Your task to perform on an android device: open app "Microsoft Excel" (install if not already installed) and enter user name: "kidnappers@icloud.com" and password: "Bessemerizes" Image 0: 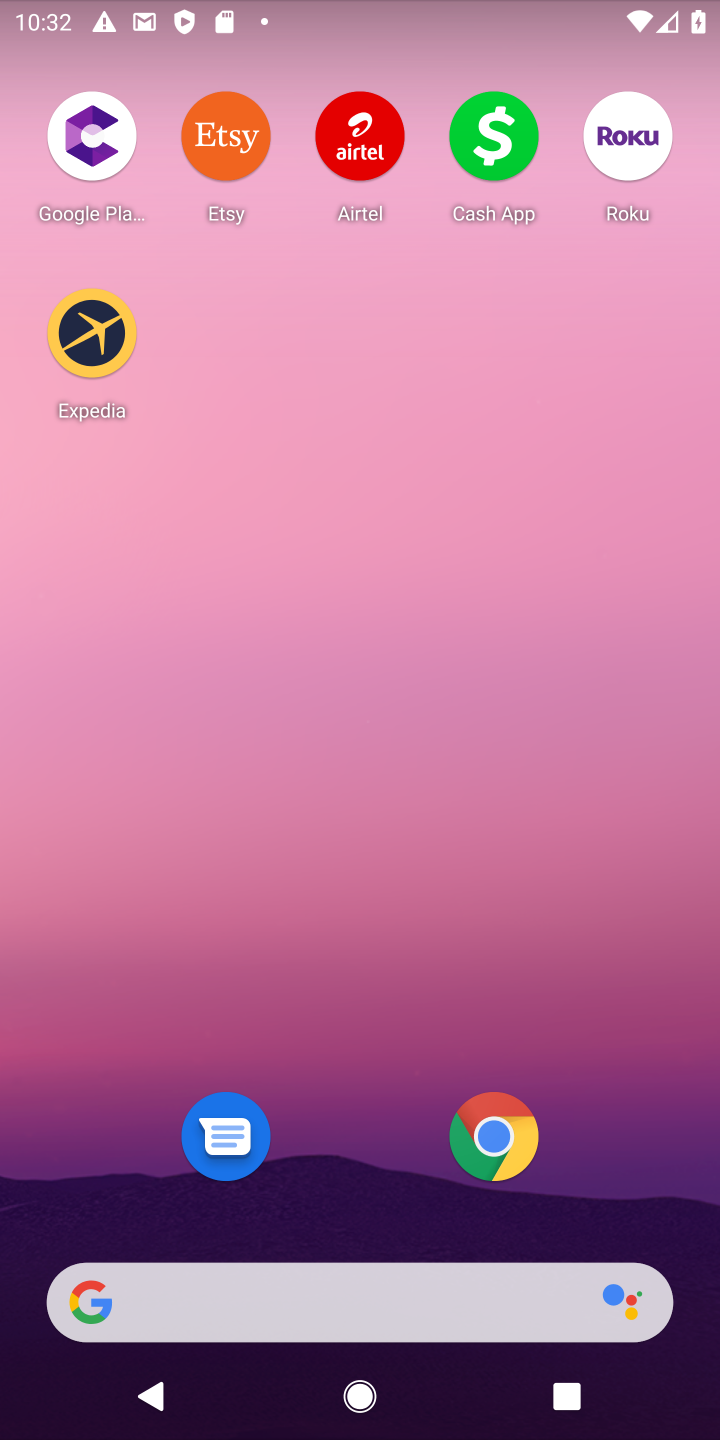
Step 0: drag from (388, 1288) to (379, 98)
Your task to perform on an android device: open app "Microsoft Excel" (install if not already installed) and enter user name: "kidnappers@icloud.com" and password: "Bessemerizes" Image 1: 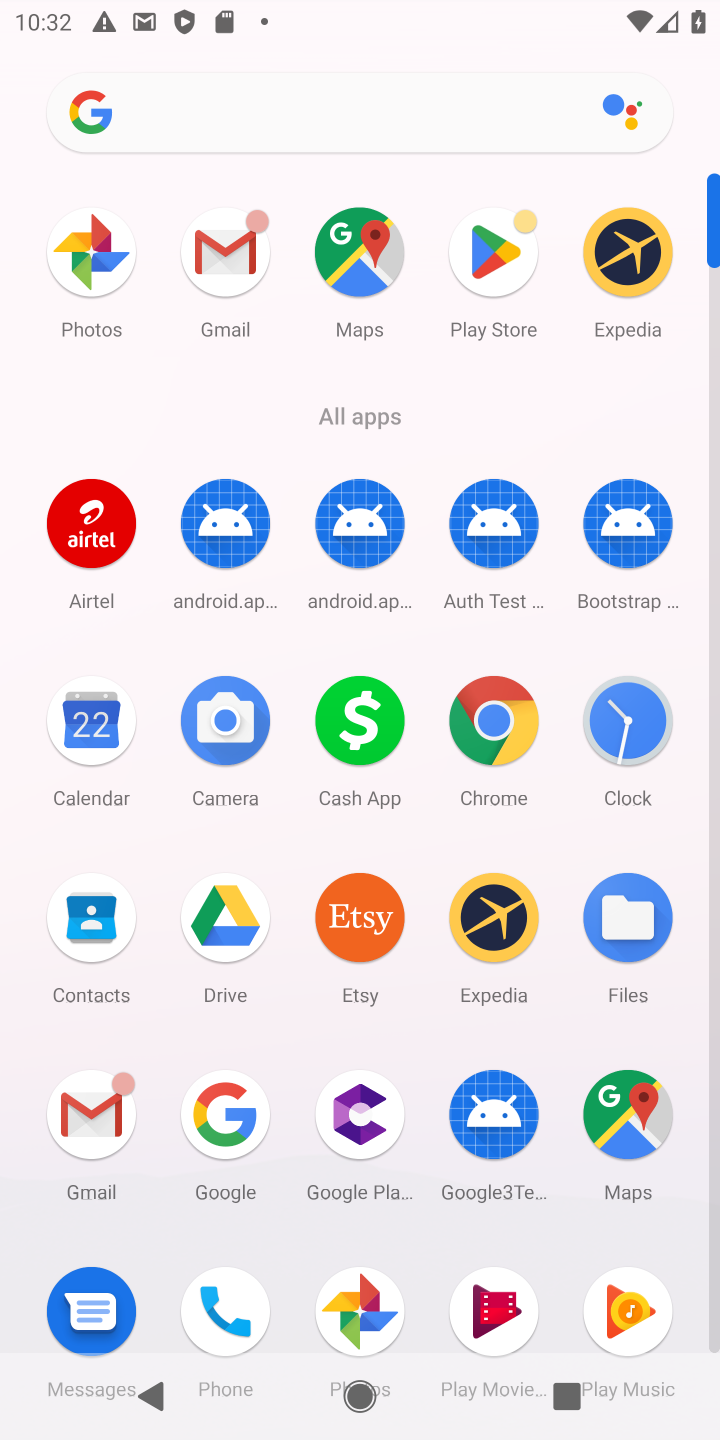
Step 1: click (510, 293)
Your task to perform on an android device: open app "Microsoft Excel" (install if not already installed) and enter user name: "kidnappers@icloud.com" and password: "Bessemerizes" Image 2: 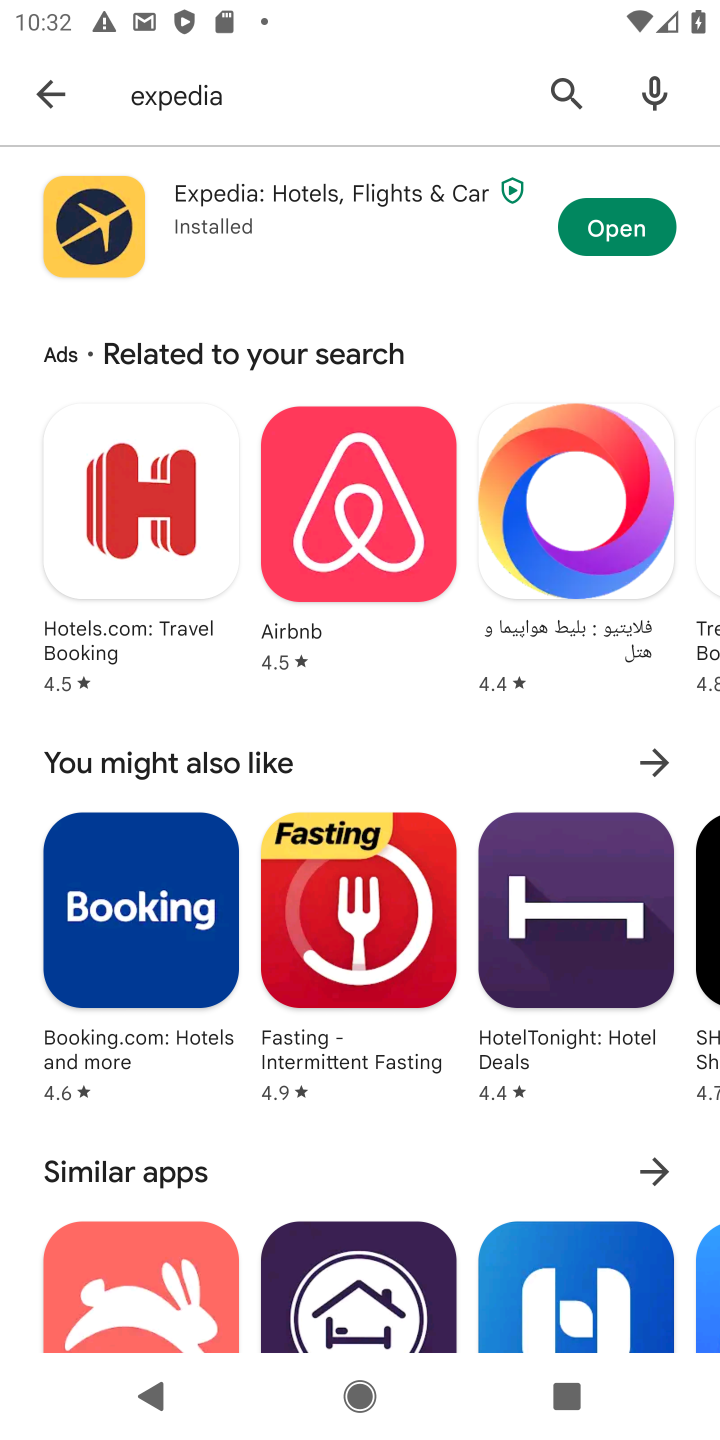
Step 2: click (573, 109)
Your task to perform on an android device: open app "Microsoft Excel" (install if not already installed) and enter user name: "kidnappers@icloud.com" and password: "Bessemerizes" Image 3: 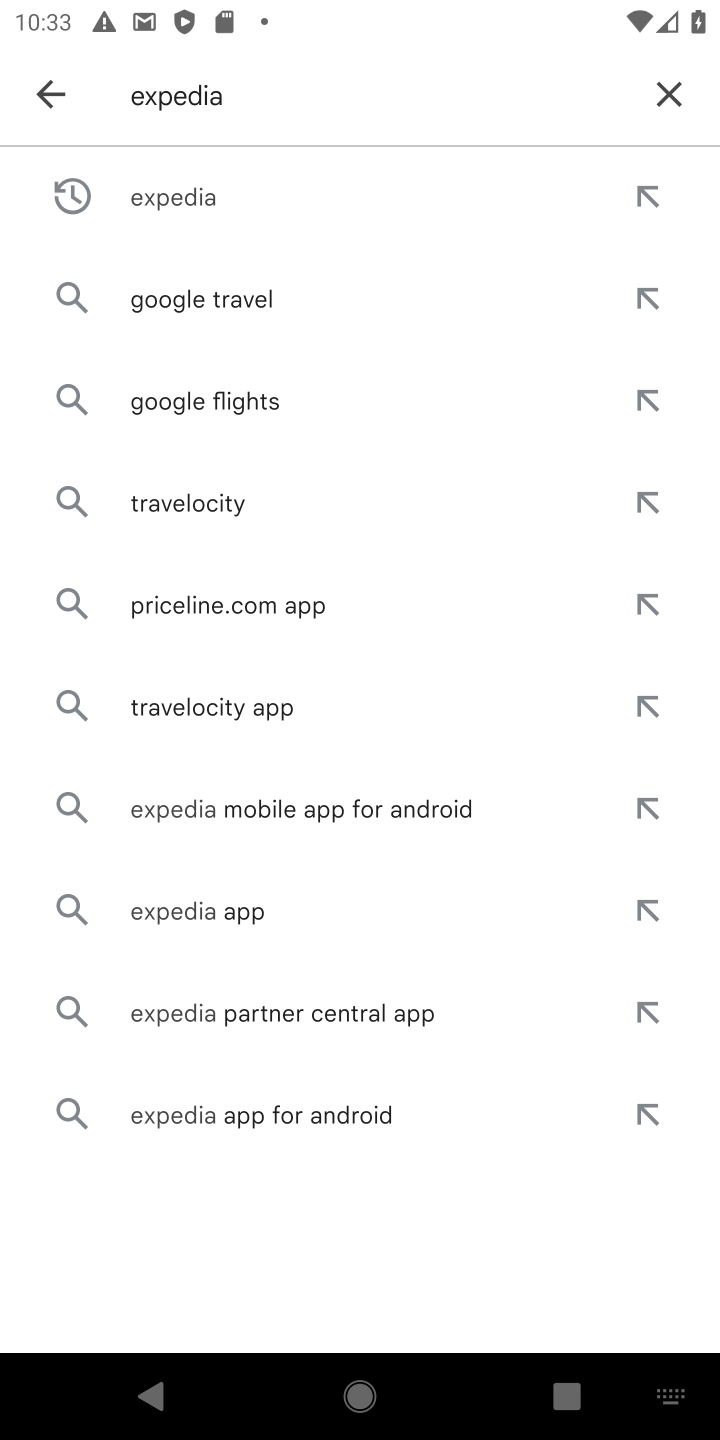
Step 3: click (683, 92)
Your task to perform on an android device: open app "Microsoft Excel" (install if not already installed) and enter user name: "kidnappers@icloud.com" and password: "Bessemerizes" Image 4: 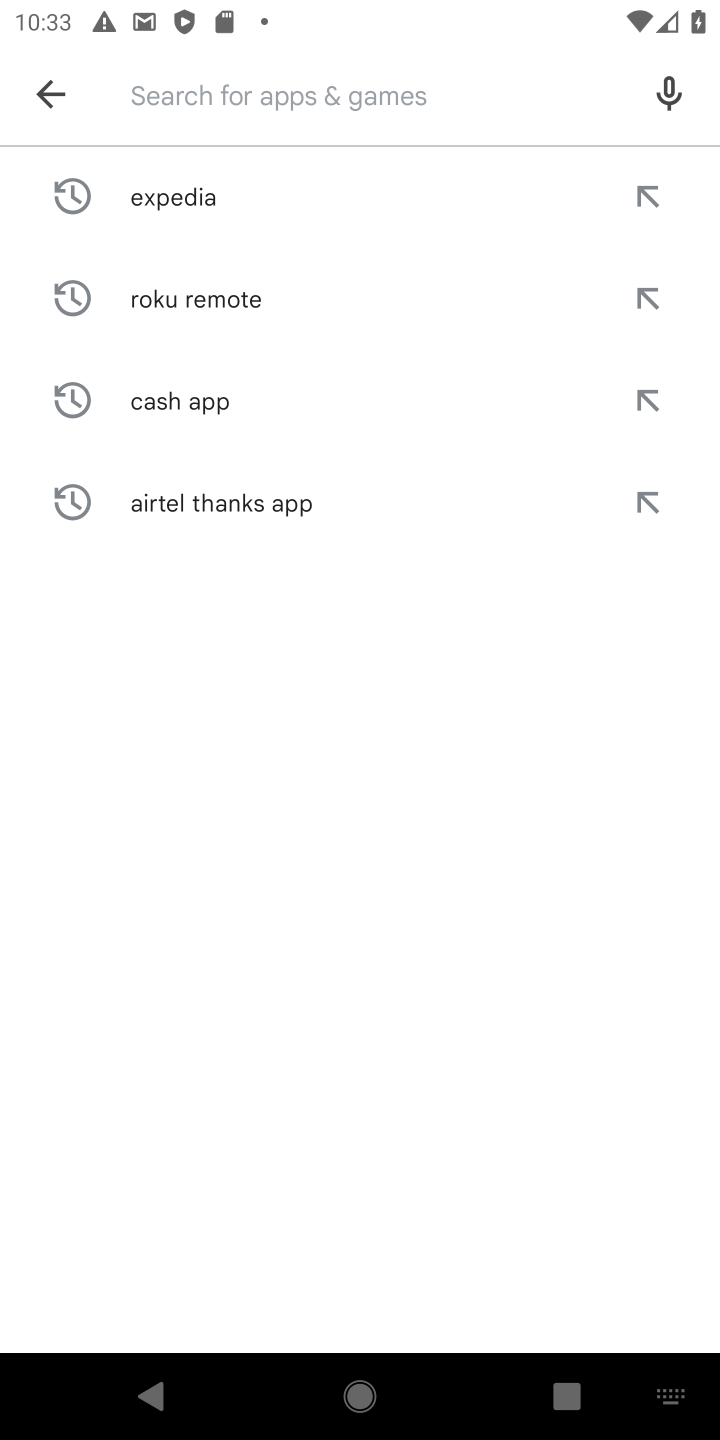
Step 4: type "microsoft excel"
Your task to perform on an android device: open app "Microsoft Excel" (install if not already installed) and enter user name: "kidnappers@icloud.com" and password: "Bessemerizes" Image 5: 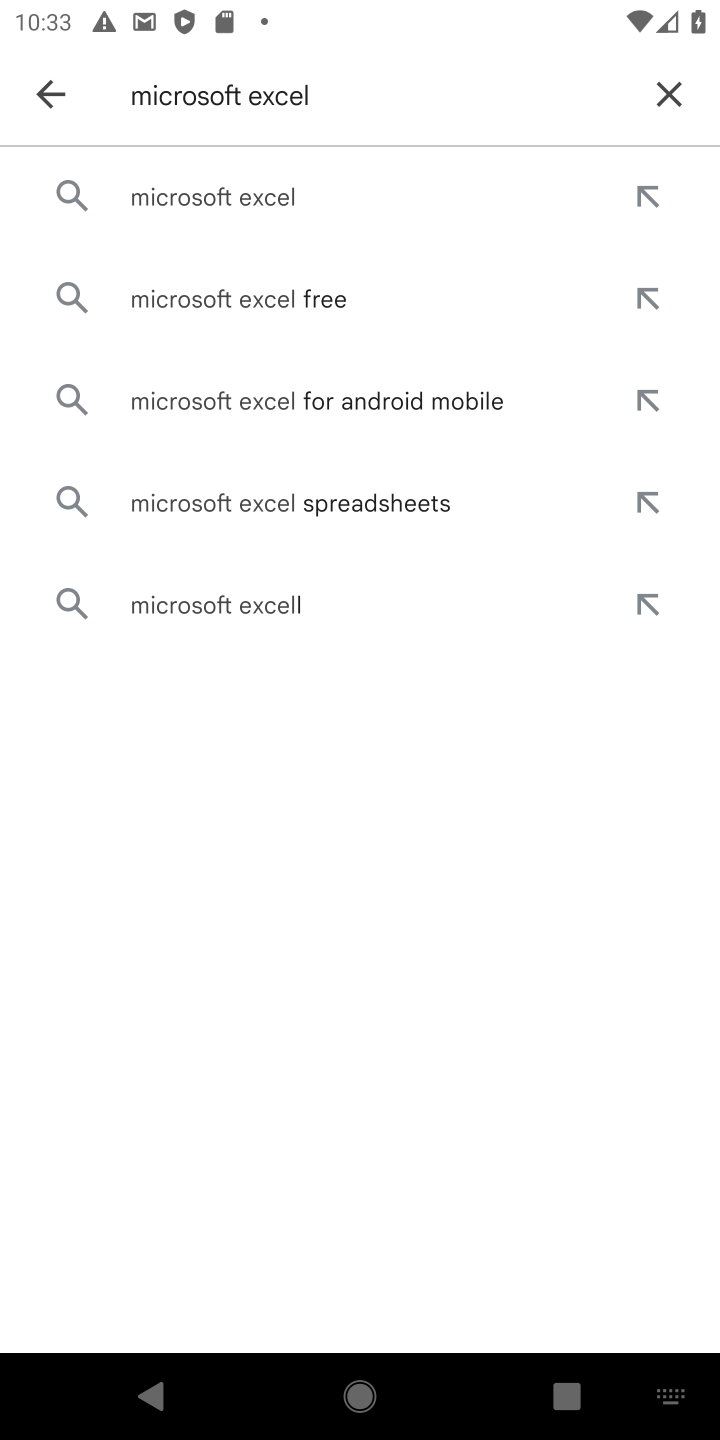
Step 5: click (266, 199)
Your task to perform on an android device: open app "Microsoft Excel" (install if not already installed) and enter user name: "kidnappers@icloud.com" and password: "Bessemerizes" Image 6: 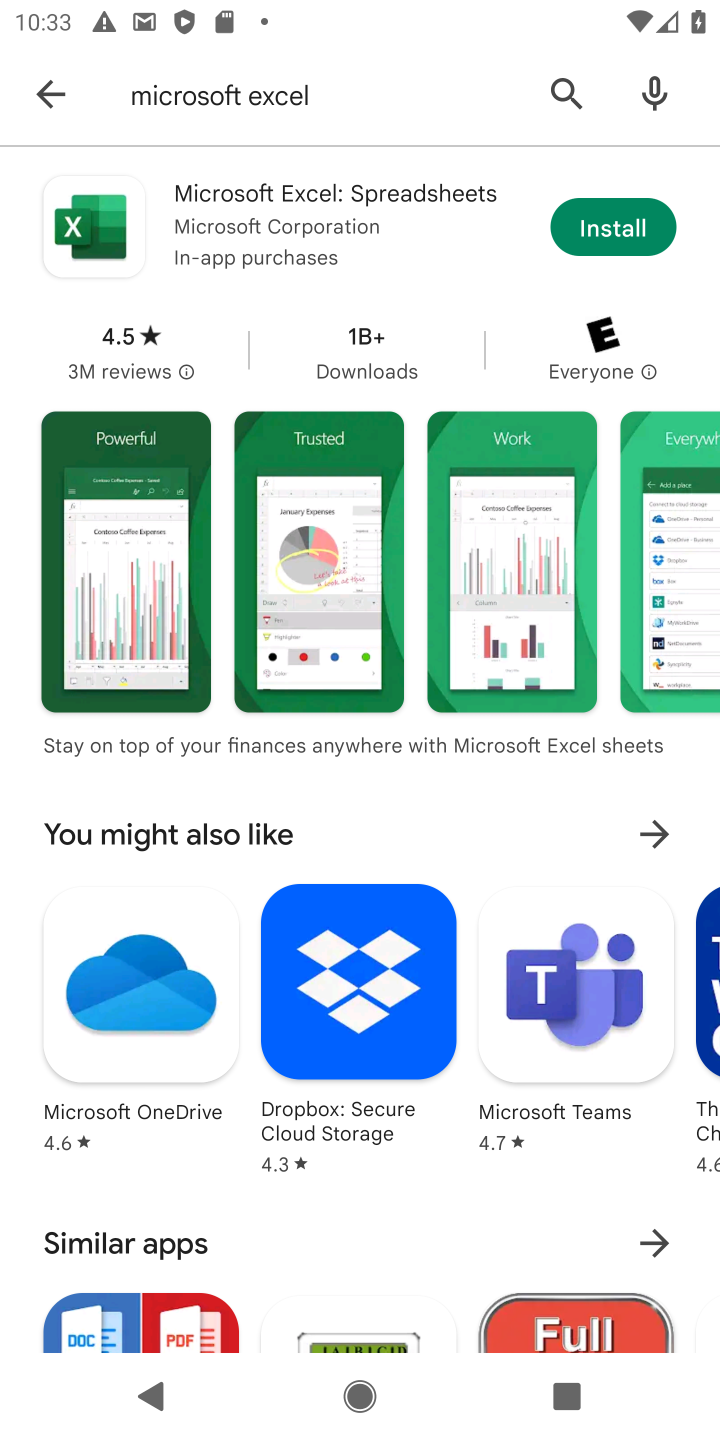
Step 6: click (595, 227)
Your task to perform on an android device: open app "Microsoft Excel" (install if not already installed) and enter user name: "kidnappers@icloud.com" and password: "Bessemerizes" Image 7: 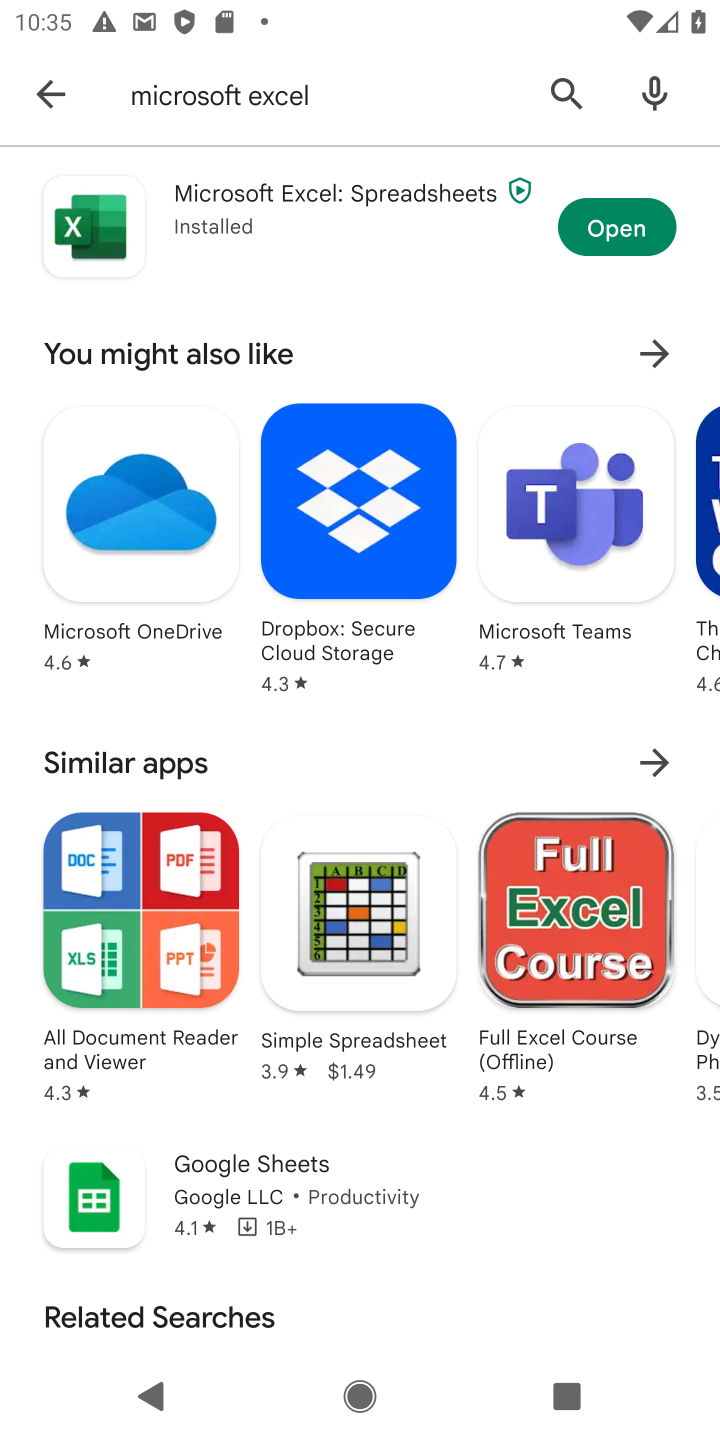
Step 7: click (628, 239)
Your task to perform on an android device: open app "Microsoft Excel" (install if not already installed) and enter user name: "kidnappers@icloud.com" and password: "Bessemerizes" Image 8: 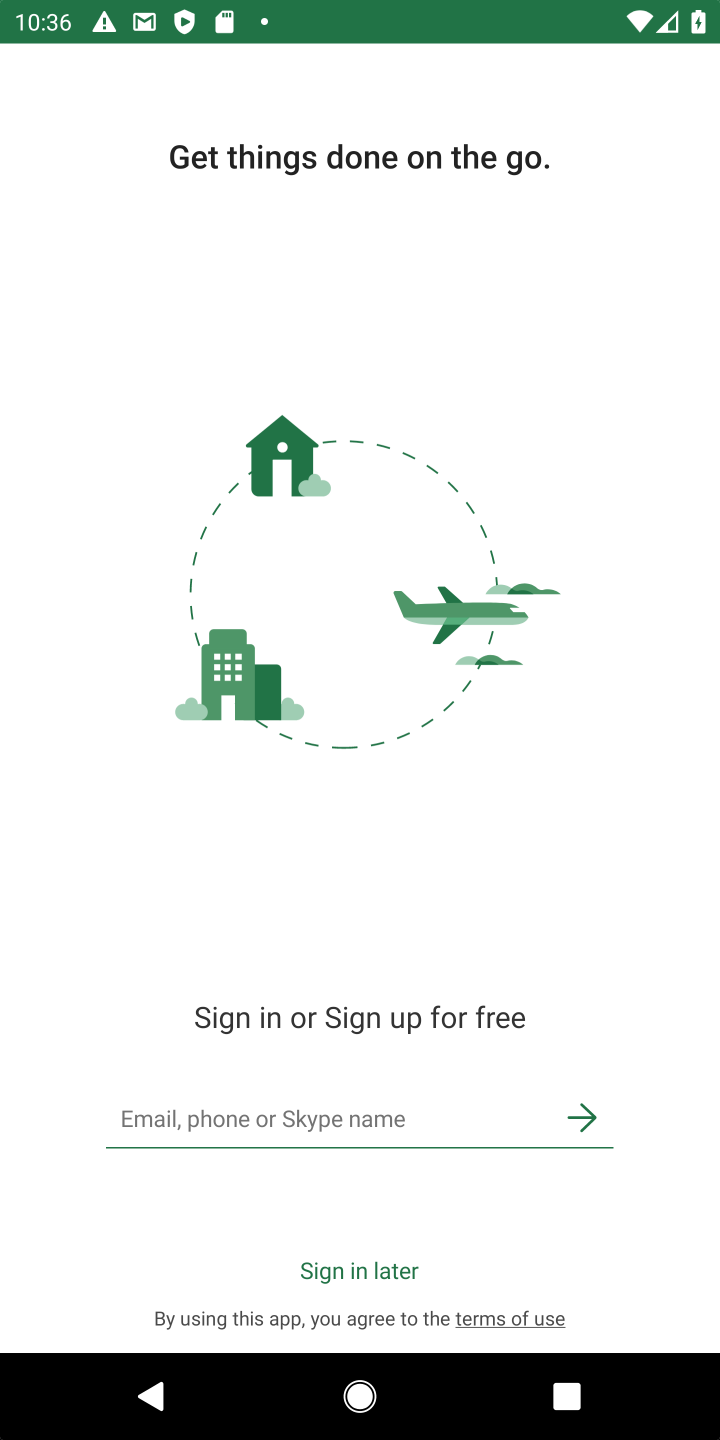
Step 8: click (283, 1123)
Your task to perform on an android device: open app "Microsoft Excel" (install if not already installed) and enter user name: "kidnappers@icloud.com" and password: "Bessemerizes" Image 9: 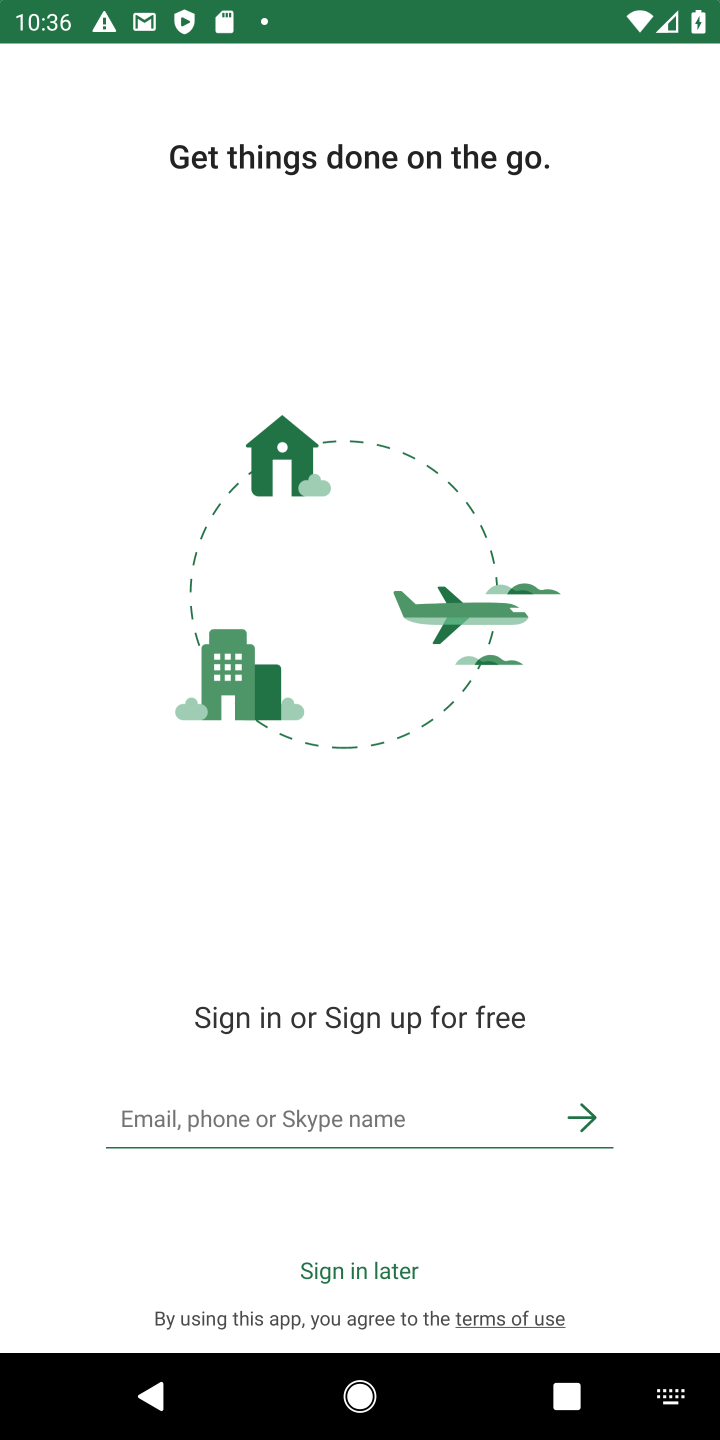
Step 9: type "kidnappers@icloud.com"
Your task to perform on an android device: open app "Microsoft Excel" (install if not already installed) and enter user name: "kidnappers@icloud.com" and password: "Bessemerizes" Image 10: 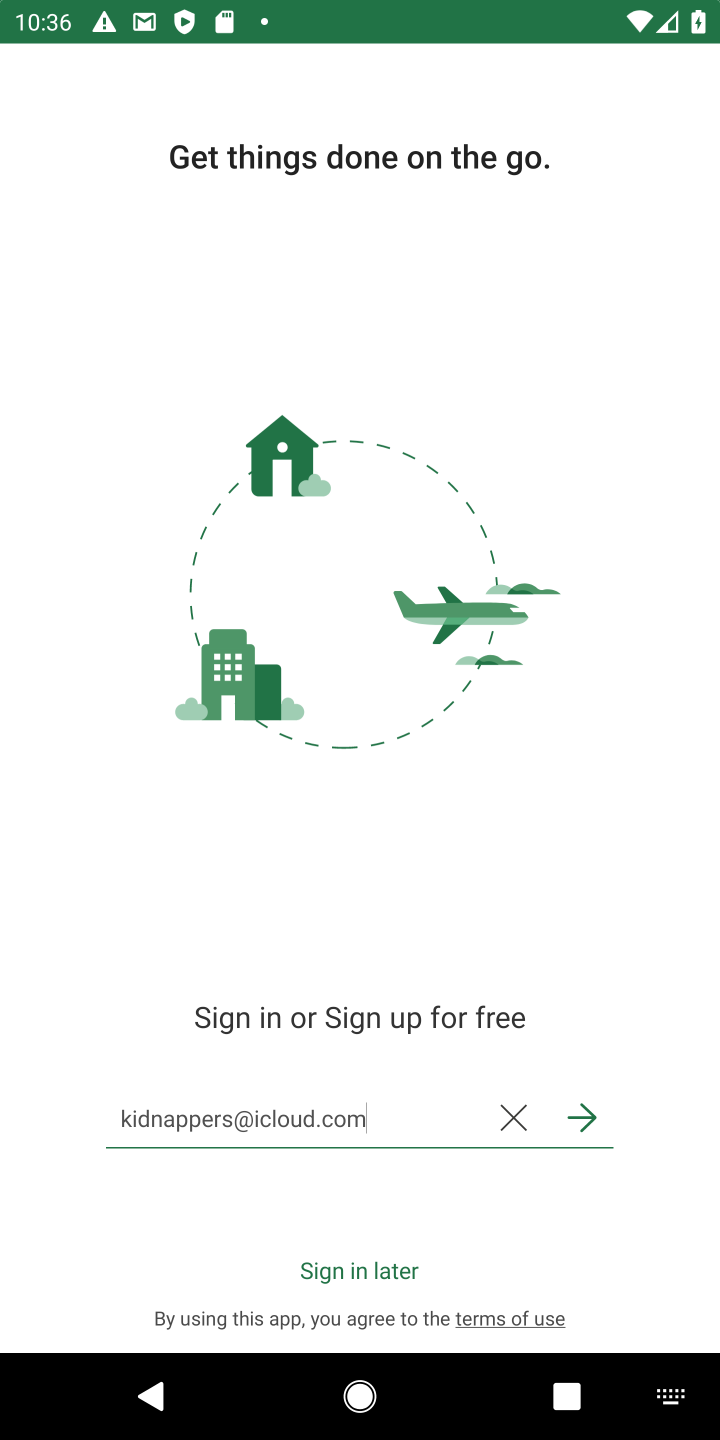
Step 10: click (590, 1110)
Your task to perform on an android device: open app "Microsoft Excel" (install if not already installed) and enter user name: "kidnappers@icloud.com" and password: "Bessemerizes" Image 11: 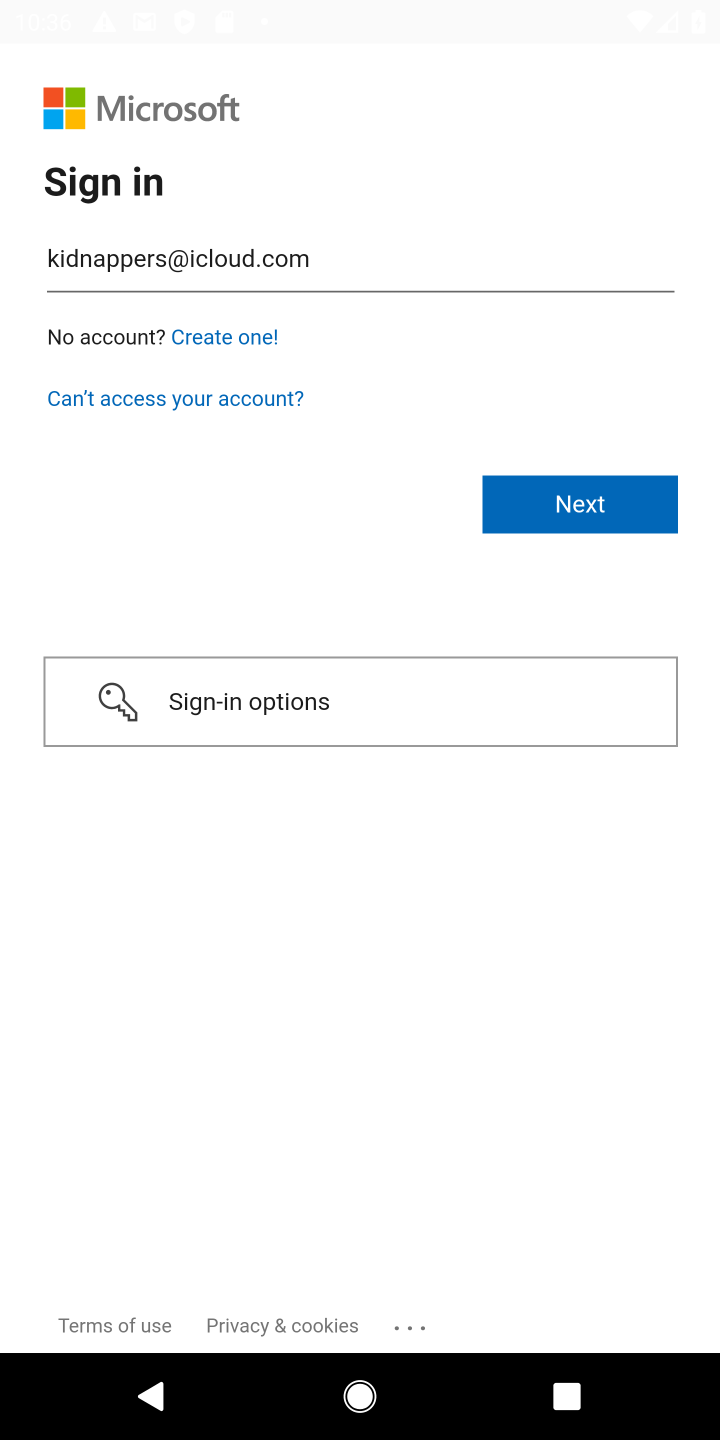
Step 11: click (591, 529)
Your task to perform on an android device: open app "Microsoft Excel" (install if not already installed) and enter user name: "kidnappers@icloud.com" and password: "Bessemerizes" Image 12: 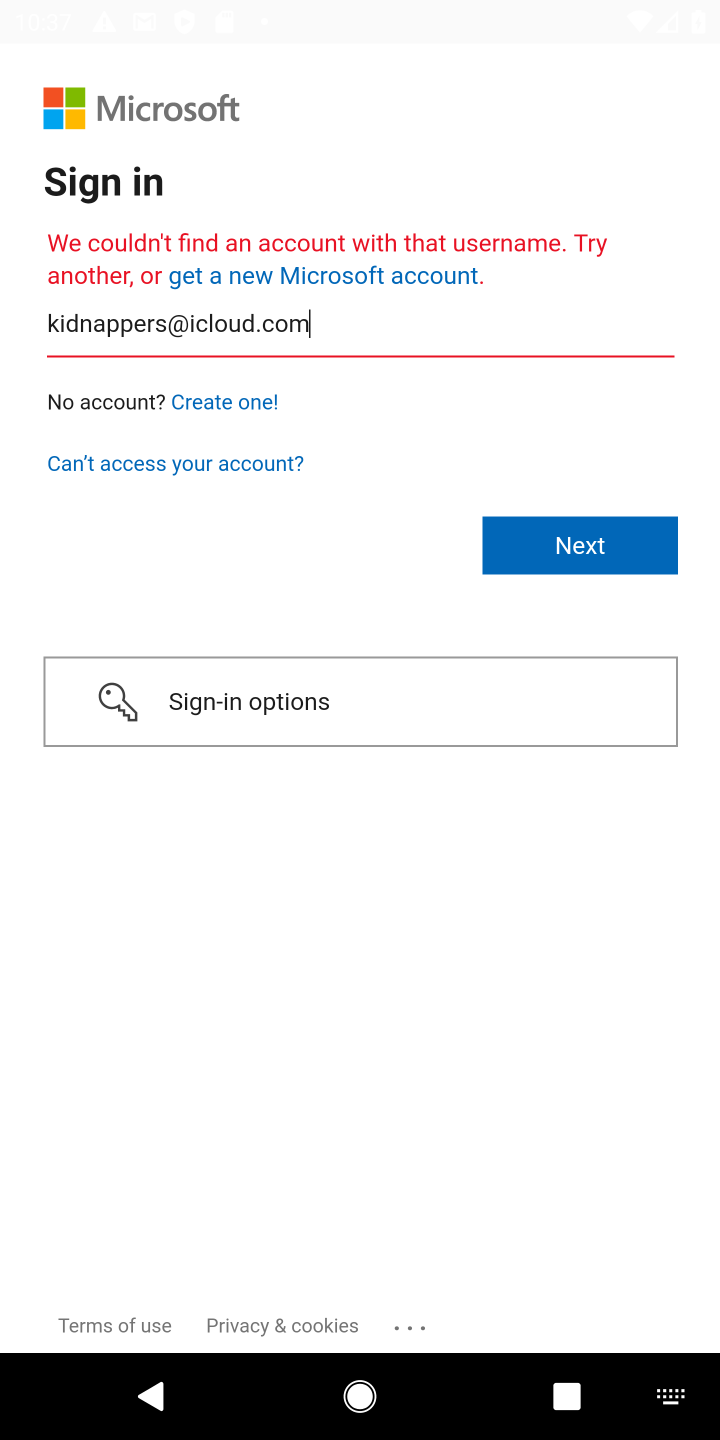
Step 12: task complete